Your task to perform on an android device: stop showing notifications on the lock screen Image 0: 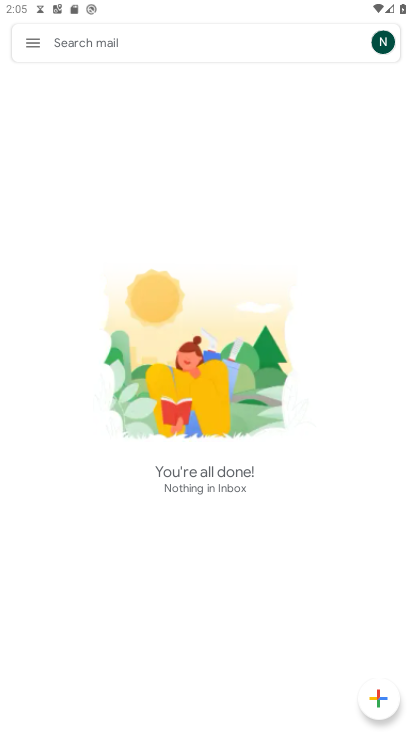
Step 0: press back button
Your task to perform on an android device: stop showing notifications on the lock screen Image 1: 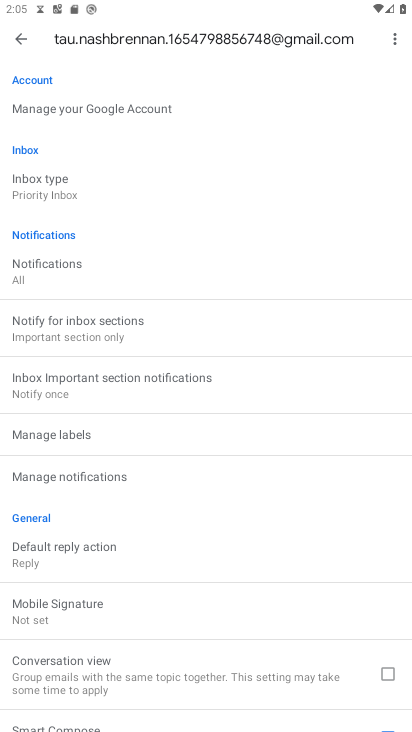
Step 1: press back button
Your task to perform on an android device: stop showing notifications on the lock screen Image 2: 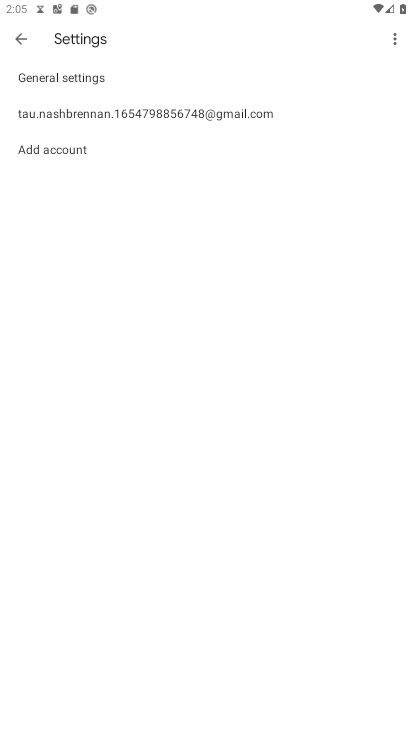
Step 2: click (9, 40)
Your task to perform on an android device: stop showing notifications on the lock screen Image 3: 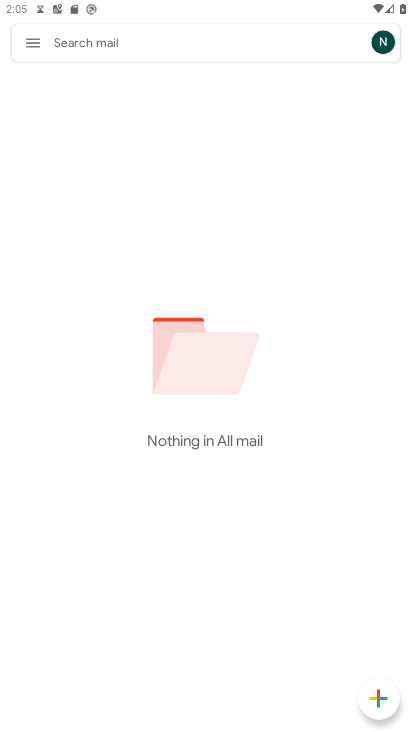
Step 3: press home button
Your task to perform on an android device: stop showing notifications on the lock screen Image 4: 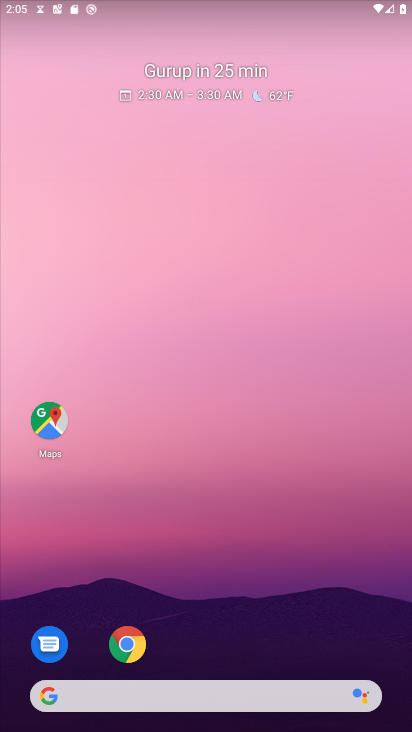
Step 4: drag from (263, 657) to (255, 299)
Your task to perform on an android device: stop showing notifications on the lock screen Image 5: 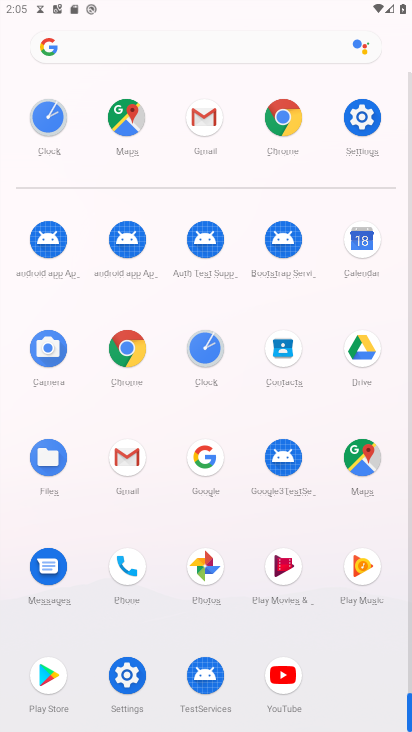
Step 5: click (198, 351)
Your task to perform on an android device: stop showing notifications on the lock screen Image 6: 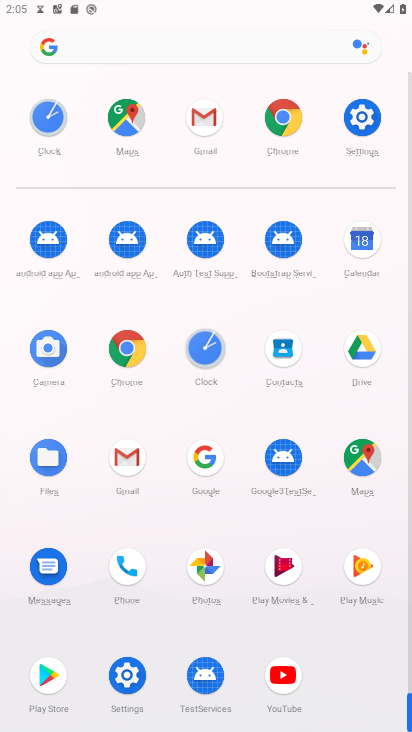
Step 6: click (209, 346)
Your task to perform on an android device: stop showing notifications on the lock screen Image 7: 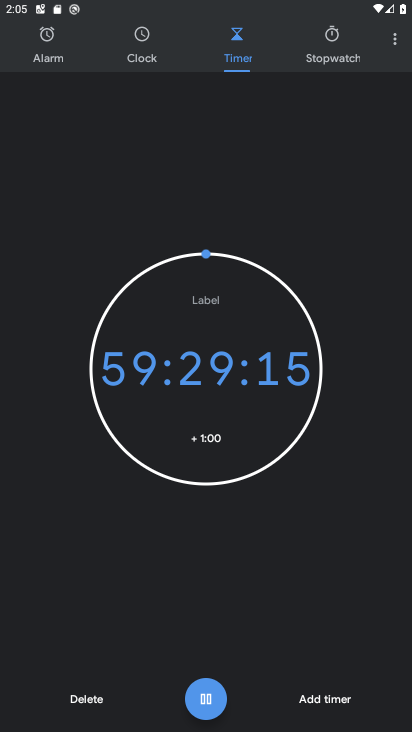
Step 7: click (384, 38)
Your task to perform on an android device: stop showing notifications on the lock screen Image 8: 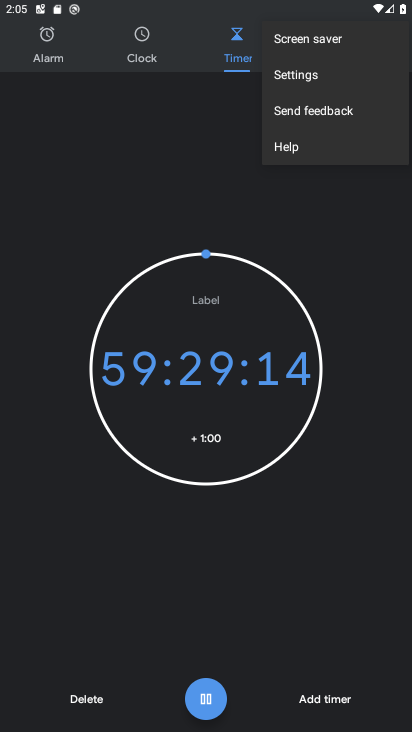
Step 8: press home button
Your task to perform on an android device: stop showing notifications on the lock screen Image 9: 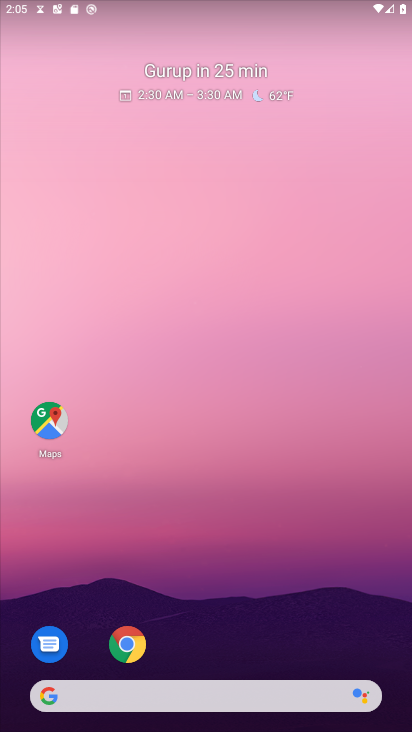
Step 9: drag from (248, 382) to (235, 319)
Your task to perform on an android device: stop showing notifications on the lock screen Image 10: 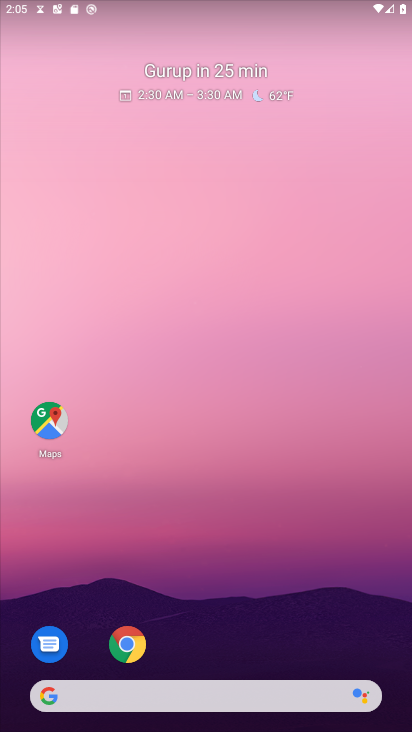
Step 10: drag from (213, 636) to (164, 157)
Your task to perform on an android device: stop showing notifications on the lock screen Image 11: 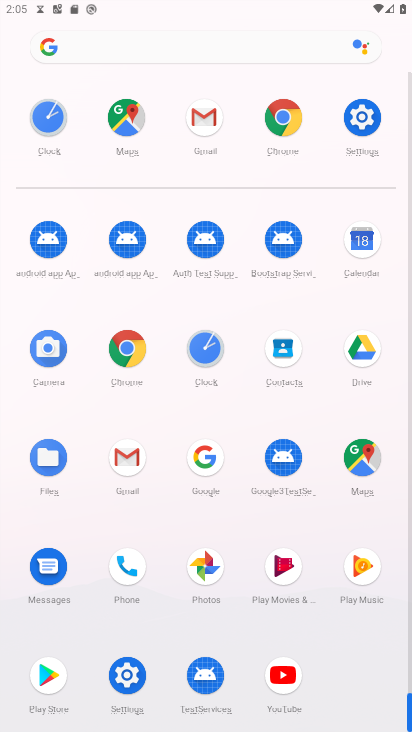
Step 11: click (143, 662)
Your task to perform on an android device: stop showing notifications on the lock screen Image 12: 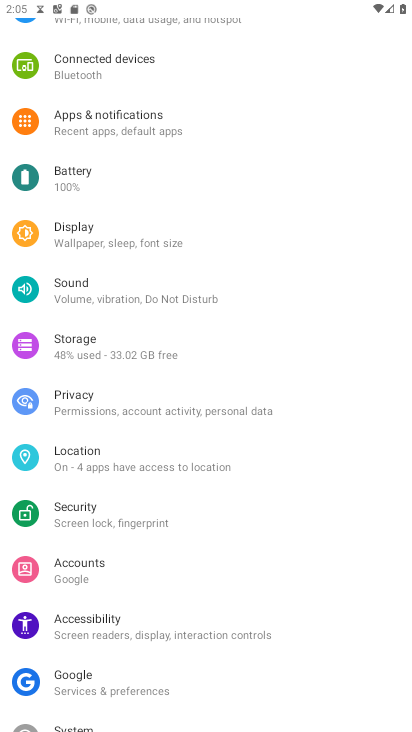
Step 12: click (90, 123)
Your task to perform on an android device: stop showing notifications on the lock screen Image 13: 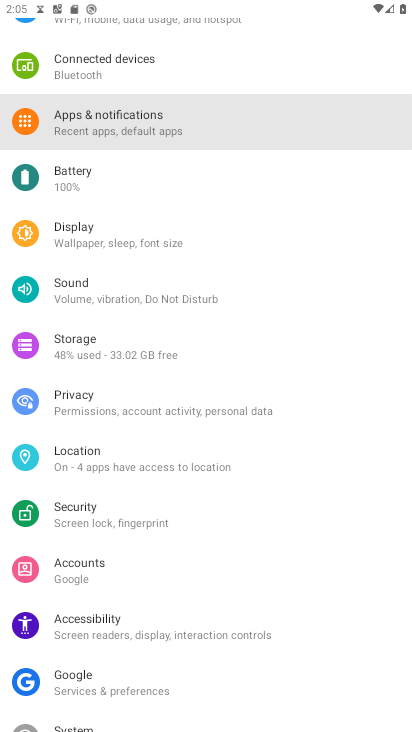
Step 13: click (92, 124)
Your task to perform on an android device: stop showing notifications on the lock screen Image 14: 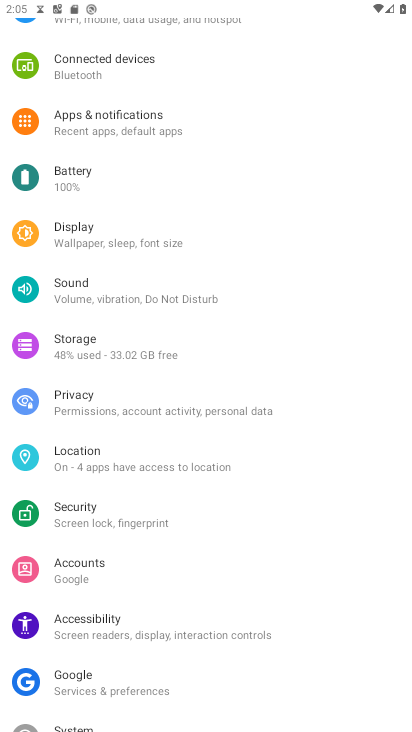
Step 14: click (92, 125)
Your task to perform on an android device: stop showing notifications on the lock screen Image 15: 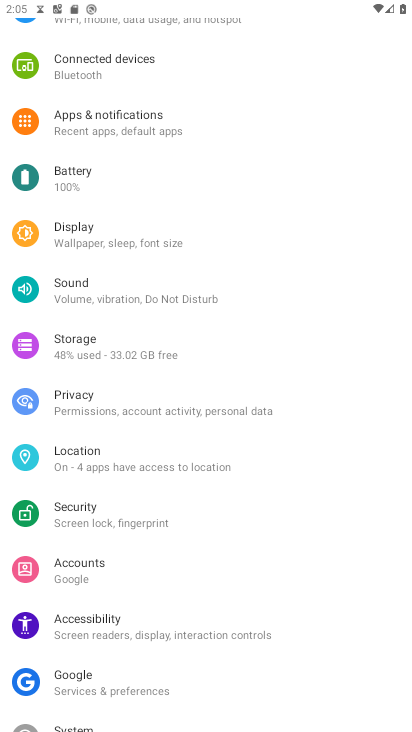
Step 15: click (93, 126)
Your task to perform on an android device: stop showing notifications on the lock screen Image 16: 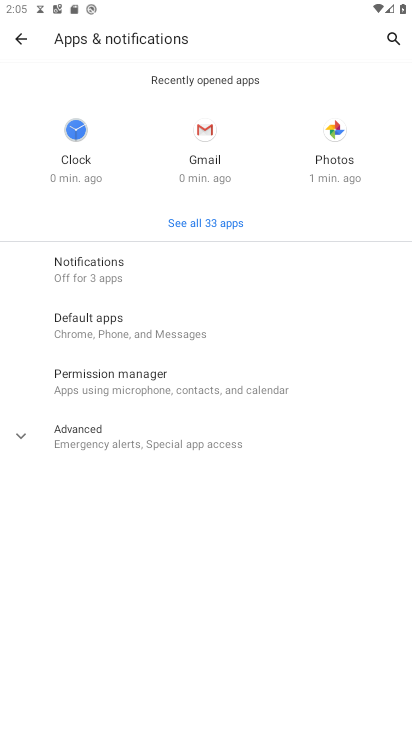
Step 16: click (91, 268)
Your task to perform on an android device: stop showing notifications on the lock screen Image 17: 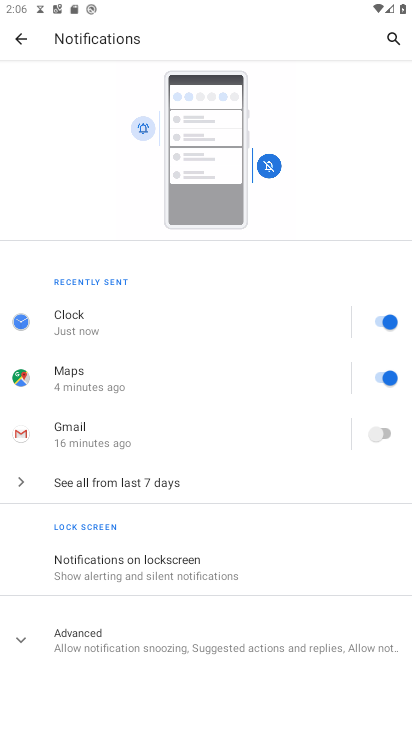
Step 17: click (118, 574)
Your task to perform on an android device: stop showing notifications on the lock screen Image 18: 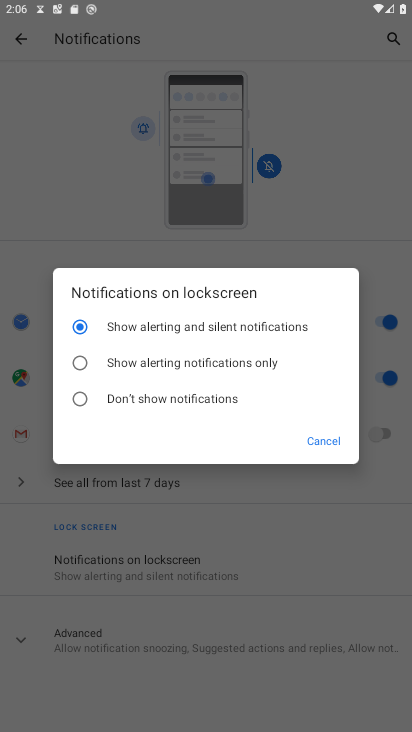
Step 18: click (111, 570)
Your task to perform on an android device: stop showing notifications on the lock screen Image 19: 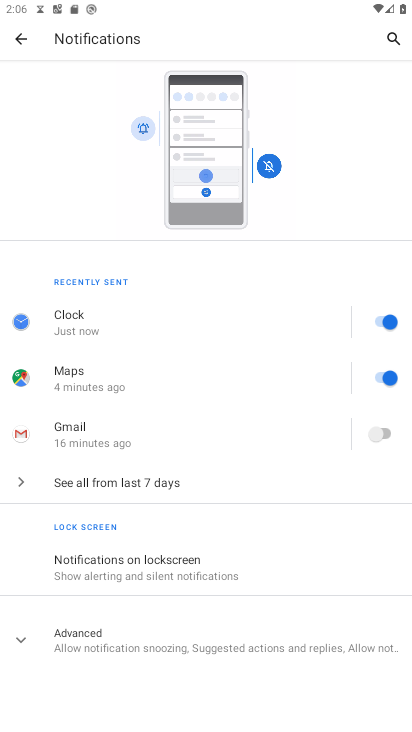
Step 19: click (156, 549)
Your task to perform on an android device: stop showing notifications on the lock screen Image 20: 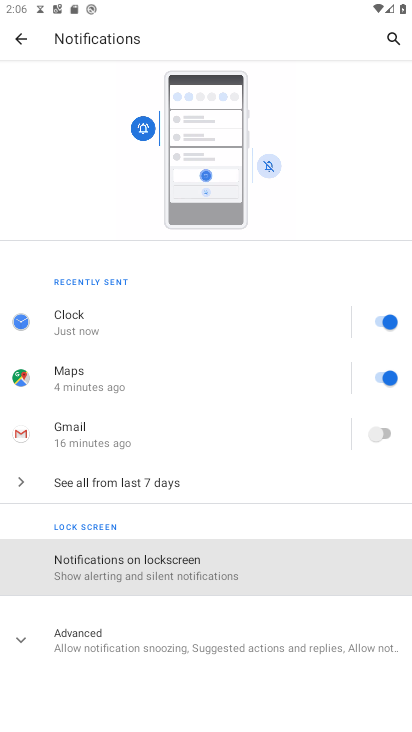
Step 20: click (156, 555)
Your task to perform on an android device: stop showing notifications on the lock screen Image 21: 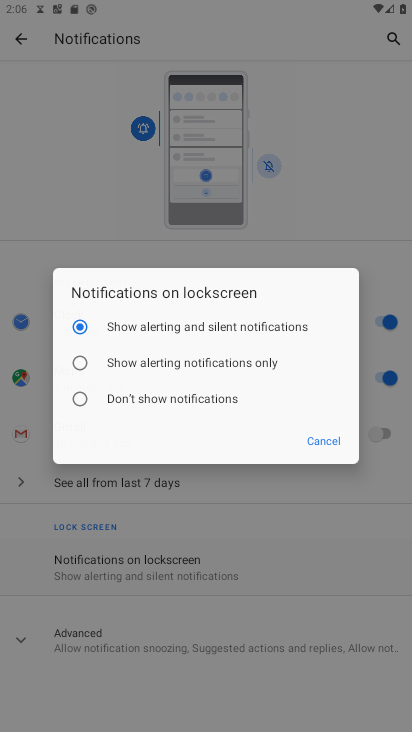
Step 21: click (161, 549)
Your task to perform on an android device: stop showing notifications on the lock screen Image 22: 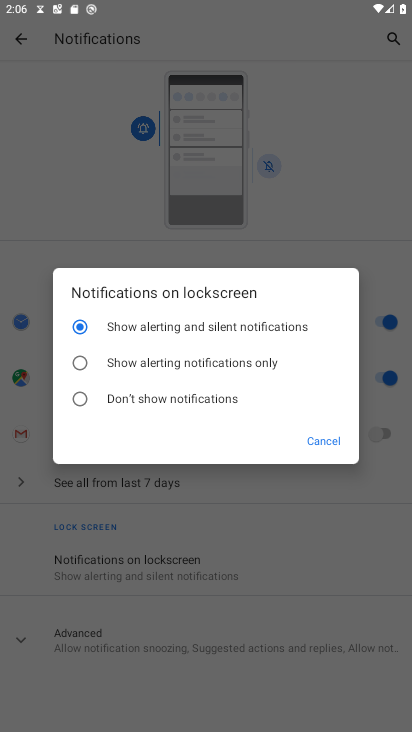
Step 22: click (158, 551)
Your task to perform on an android device: stop showing notifications on the lock screen Image 23: 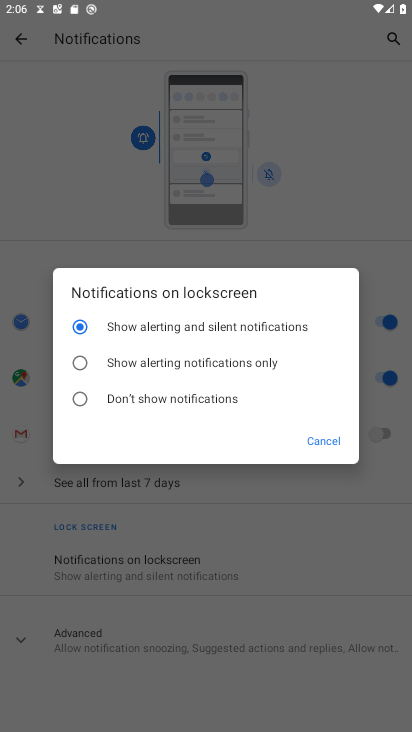
Step 23: click (79, 393)
Your task to perform on an android device: stop showing notifications on the lock screen Image 24: 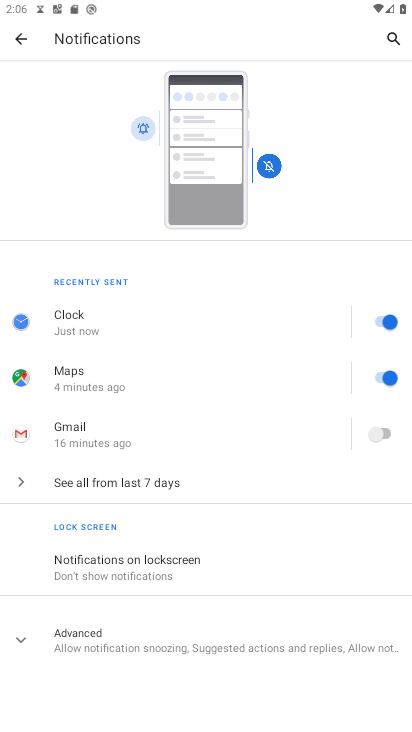
Step 24: task complete